Your task to perform on an android device: Open calendar and show me the second week of next month Image 0: 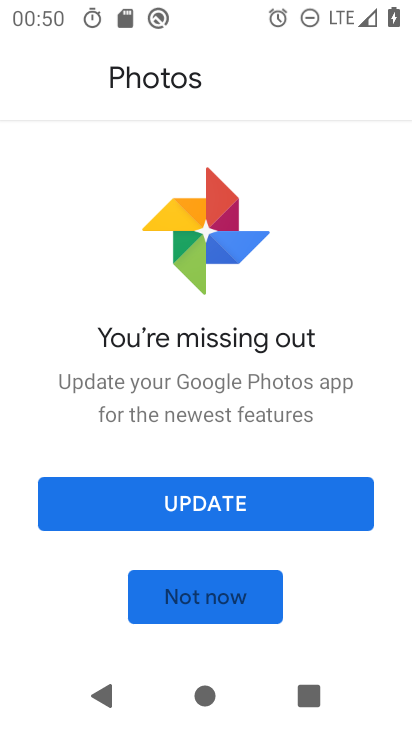
Step 0: press home button
Your task to perform on an android device: Open calendar and show me the second week of next month Image 1: 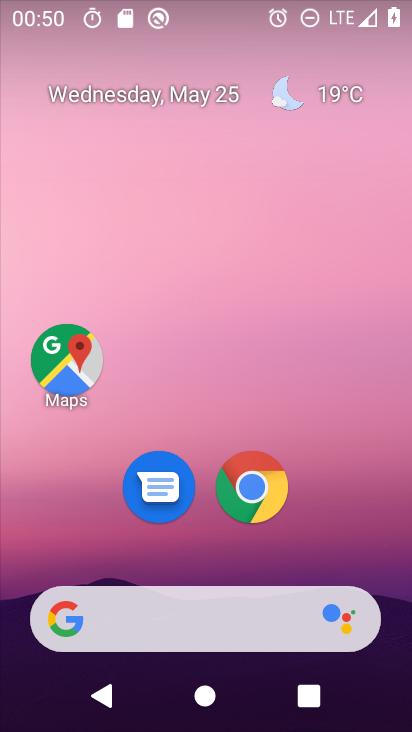
Step 1: drag from (372, 577) to (318, 1)
Your task to perform on an android device: Open calendar and show me the second week of next month Image 2: 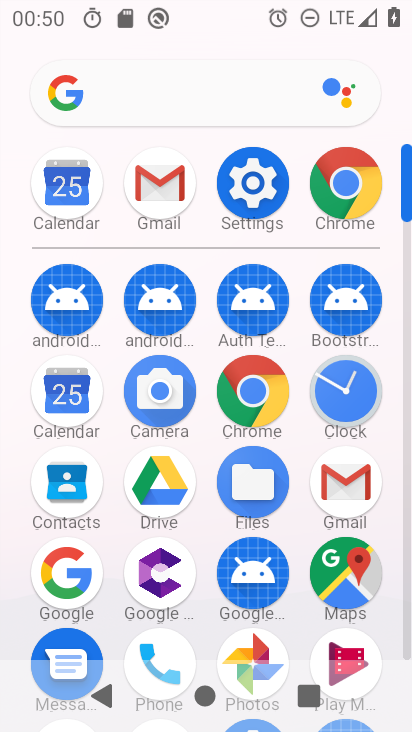
Step 2: click (70, 184)
Your task to perform on an android device: Open calendar and show me the second week of next month Image 3: 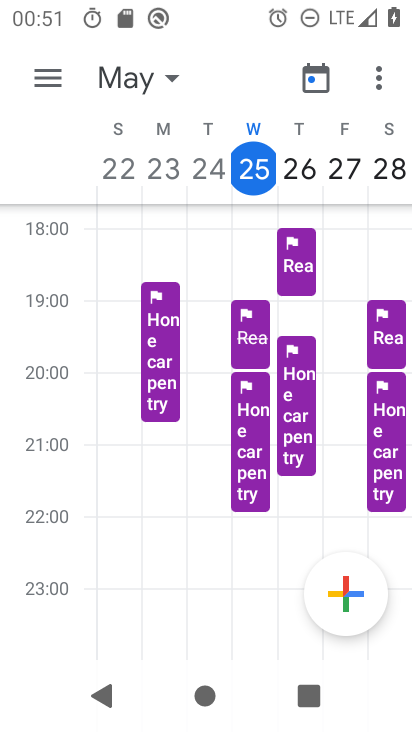
Step 3: task complete